Your task to perform on an android device: Search for "usb-c to usb-a" on bestbuy, select the first entry, add it to the cart, then select checkout. Image 0: 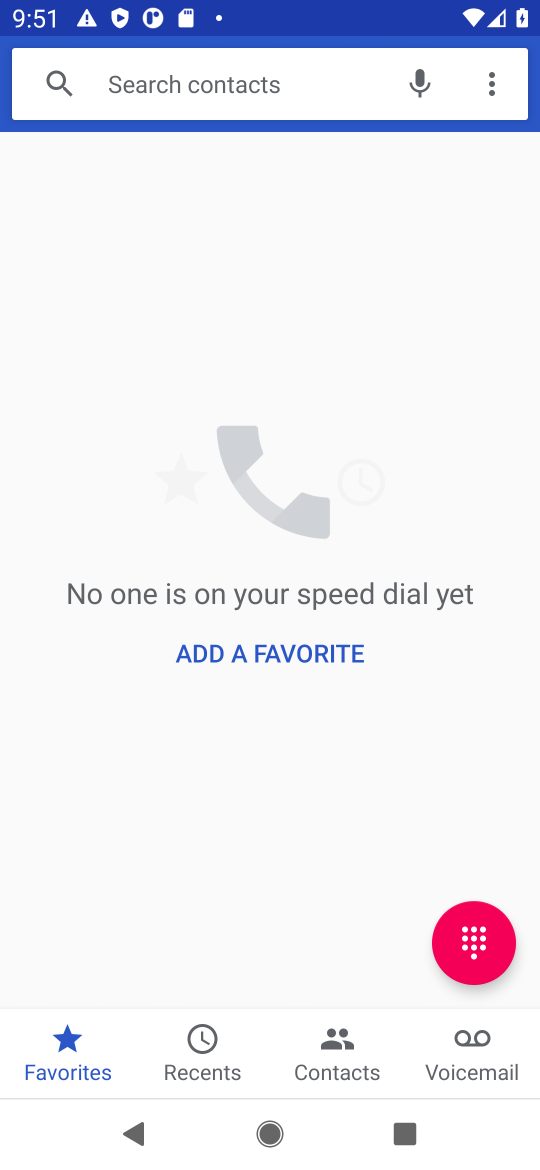
Step 0: press home button
Your task to perform on an android device: Search for "usb-c to usb-a" on bestbuy, select the first entry, add it to the cart, then select checkout. Image 1: 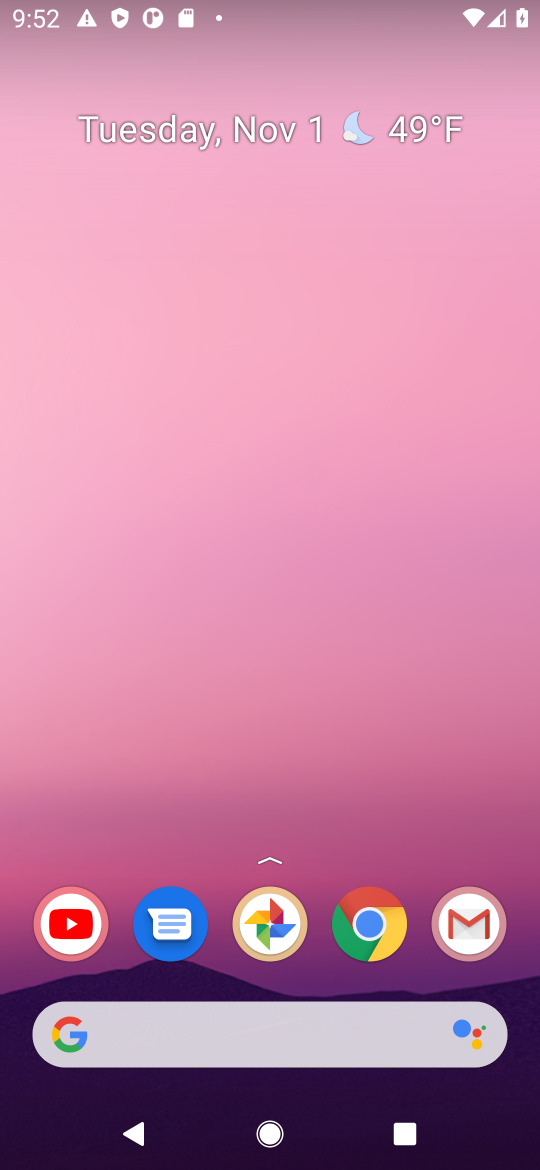
Step 1: click (372, 928)
Your task to perform on an android device: Search for "usb-c to usb-a" on bestbuy, select the first entry, add it to the cart, then select checkout. Image 2: 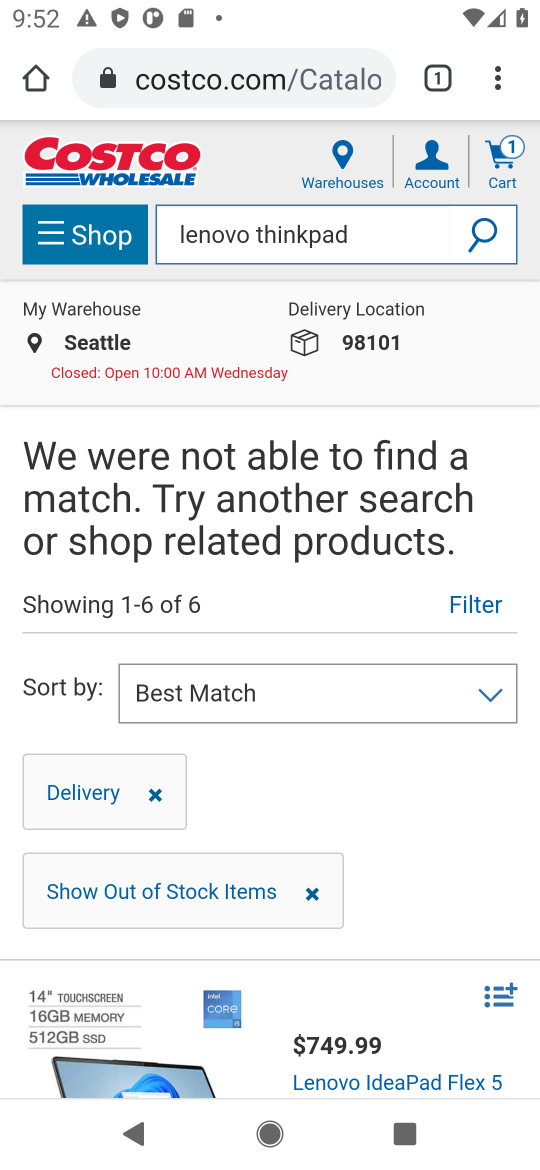
Step 2: click (264, 79)
Your task to perform on an android device: Search for "usb-c to usb-a" on bestbuy, select the first entry, add it to the cart, then select checkout. Image 3: 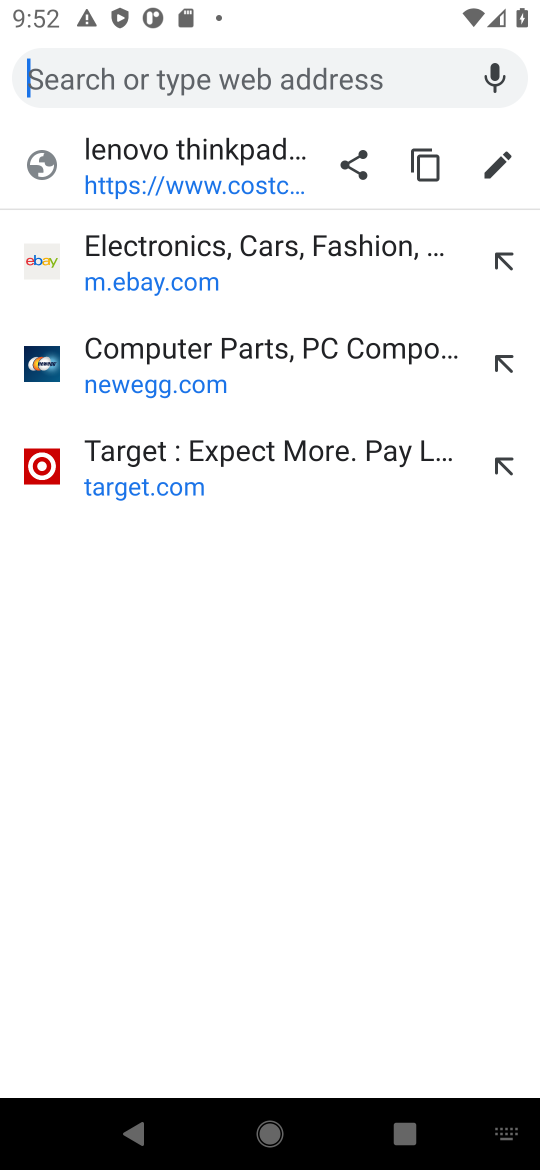
Step 3: type "bestbuy"
Your task to perform on an android device: Search for "usb-c to usb-a" on bestbuy, select the first entry, add it to the cart, then select checkout. Image 4: 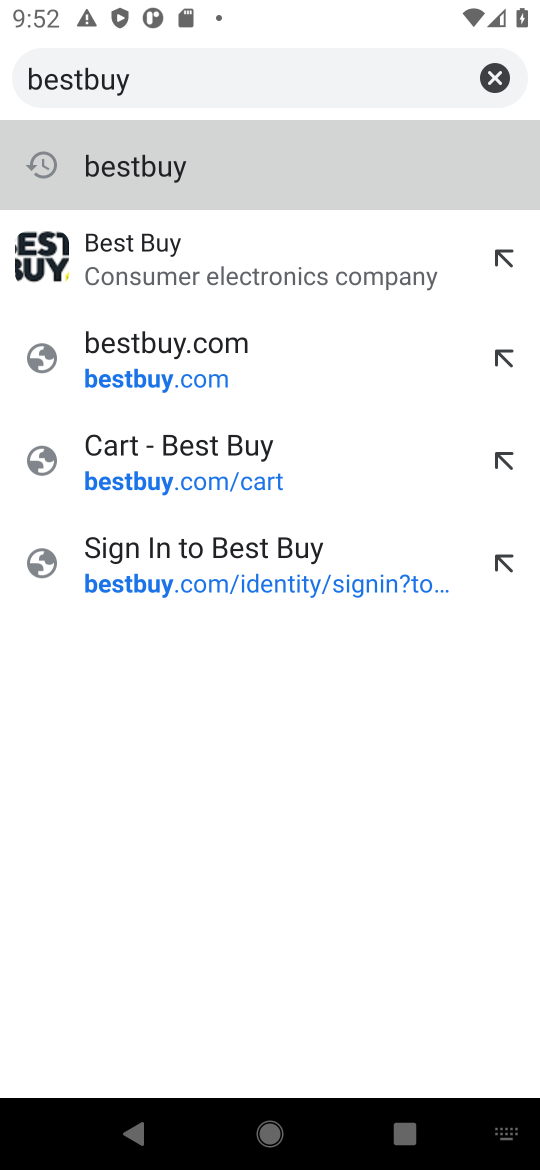
Step 4: click (86, 258)
Your task to perform on an android device: Search for "usb-c to usb-a" on bestbuy, select the first entry, add it to the cart, then select checkout. Image 5: 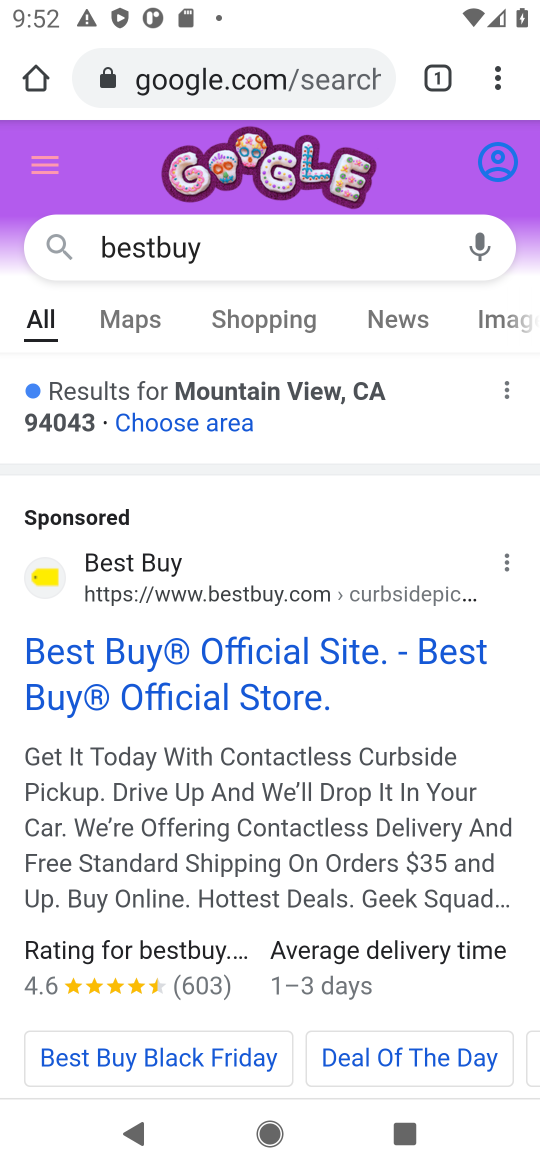
Step 5: click (171, 657)
Your task to perform on an android device: Search for "usb-c to usb-a" on bestbuy, select the first entry, add it to the cart, then select checkout. Image 6: 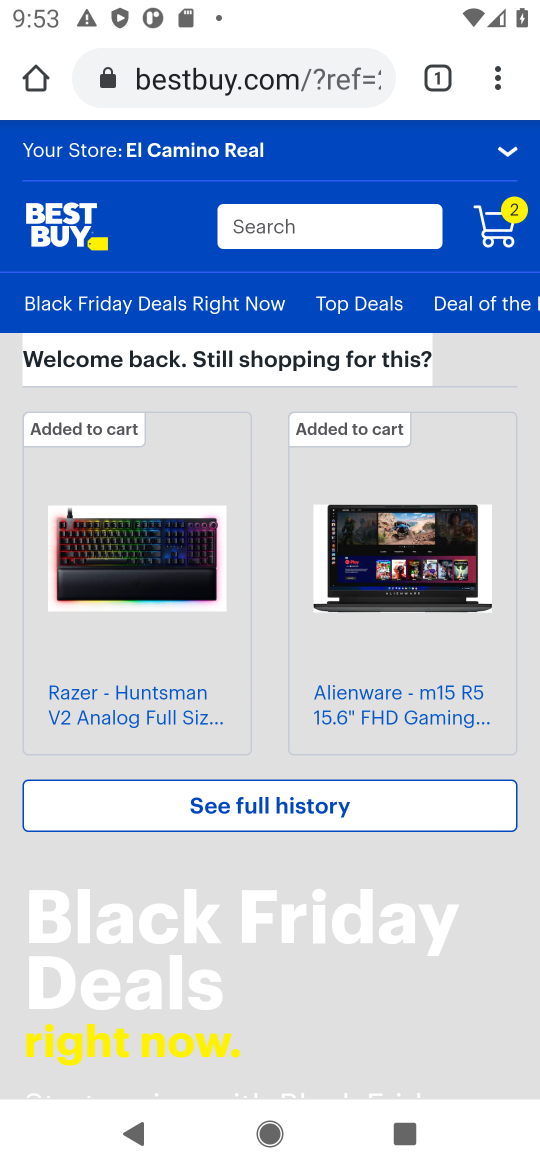
Step 6: click (277, 225)
Your task to perform on an android device: Search for "usb-c to usb-a" on bestbuy, select the first entry, add it to the cart, then select checkout. Image 7: 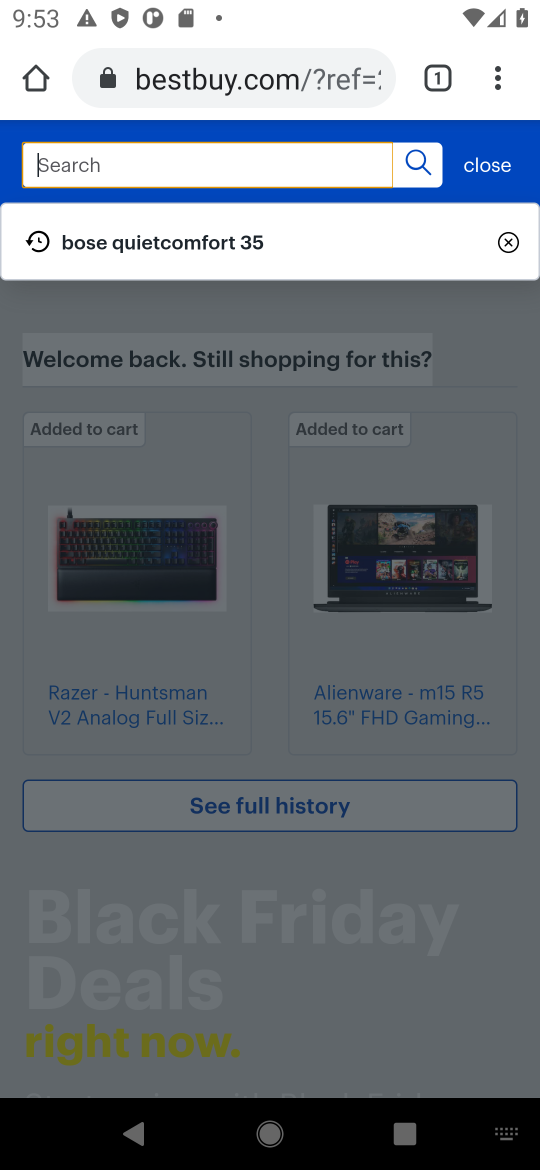
Step 7: type "usb-c to usb-a"
Your task to perform on an android device: Search for "usb-c to usb-a" on bestbuy, select the first entry, add it to the cart, then select checkout. Image 8: 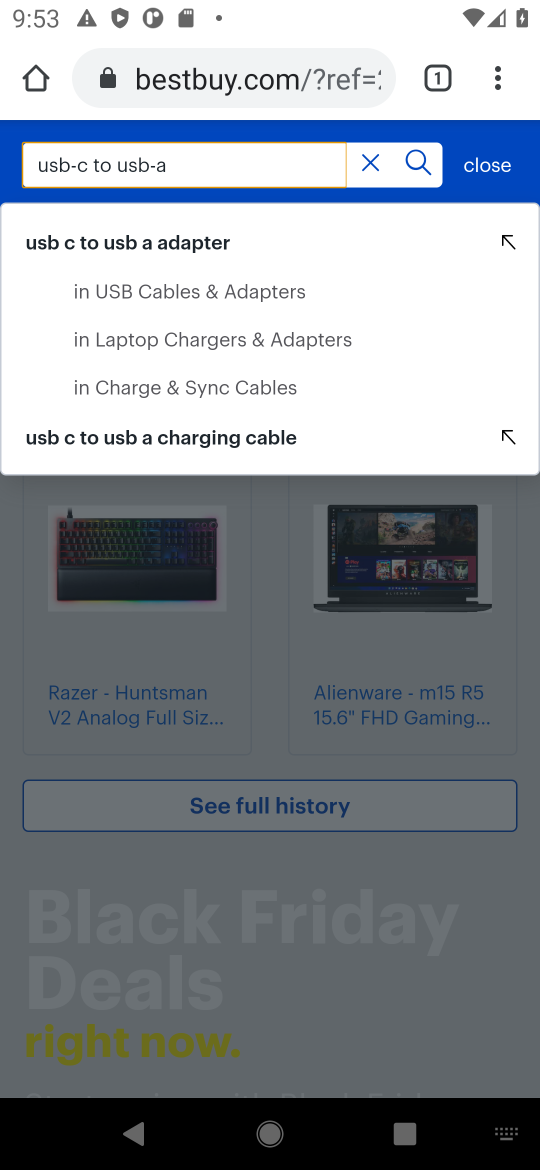
Step 8: click (415, 167)
Your task to perform on an android device: Search for "usb-c to usb-a" on bestbuy, select the first entry, add it to the cart, then select checkout. Image 9: 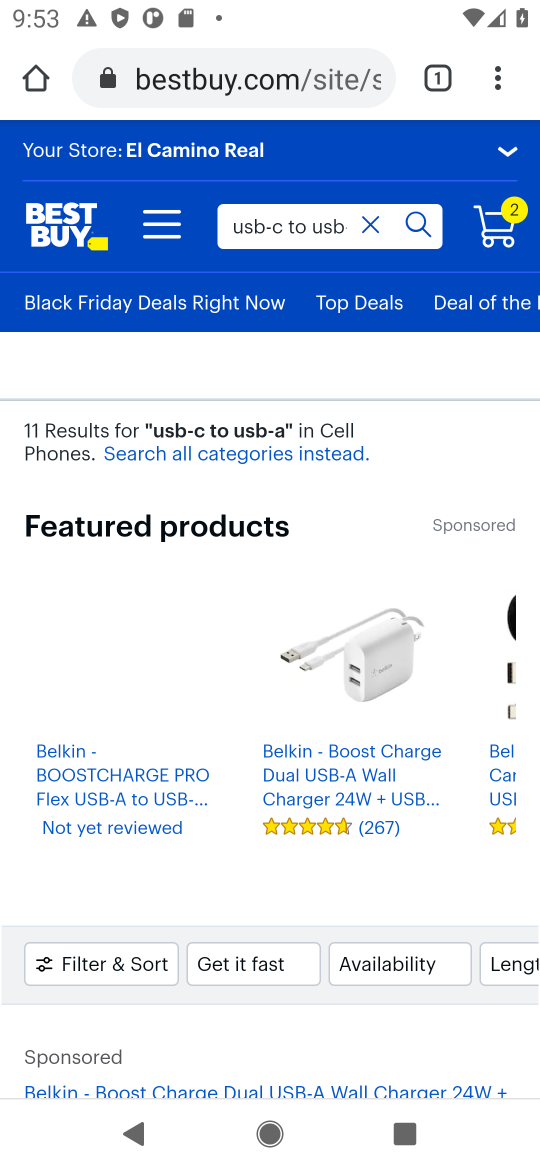
Step 9: drag from (372, 489) to (376, 354)
Your task to perform on an android device: Search for "usb-c to usb-a" on bestbuy, select the first entry, add it to the cart, then select checkout. Image 10: 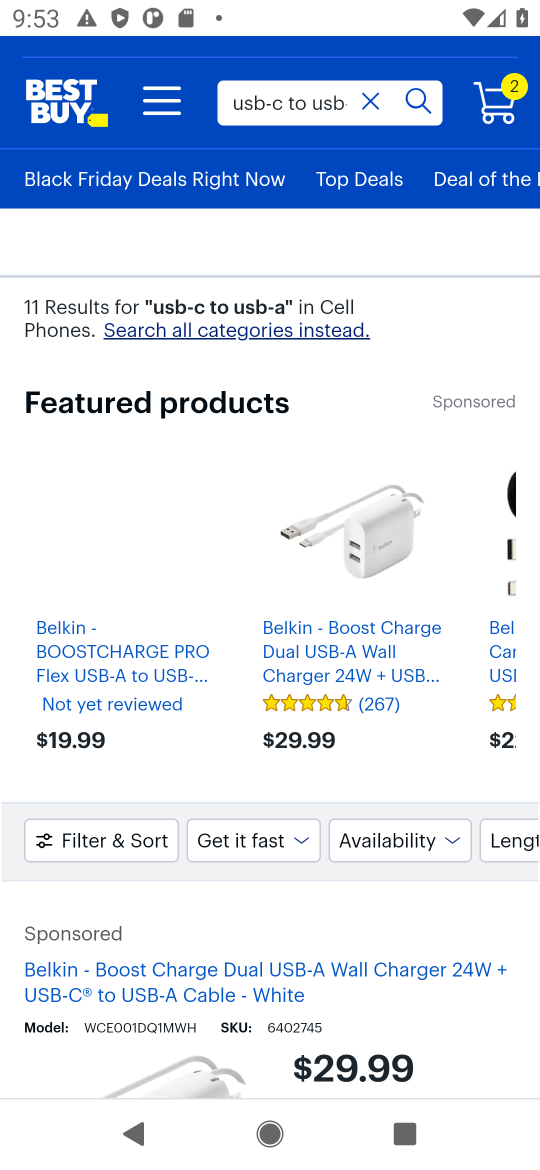
Step 10: drag from (349, 780) to (336, 549)
Your task to perform on an android device: Search for "usb-c to usb-a" on bestbuy, select the first entry, add it to the cart, then select checkout. Image 11: 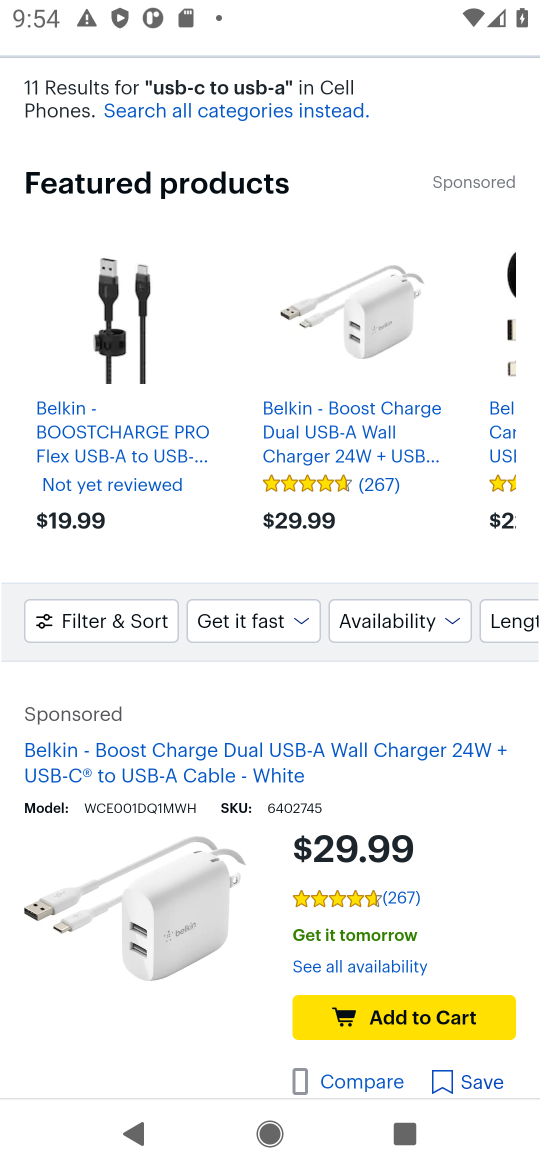
Step 11: click (207, 765)
Your task to perform on an android device: Search for "usb-c to usb-a" on bestbuy, select the first entry, add it to the cart, then select checkout. Image 12: 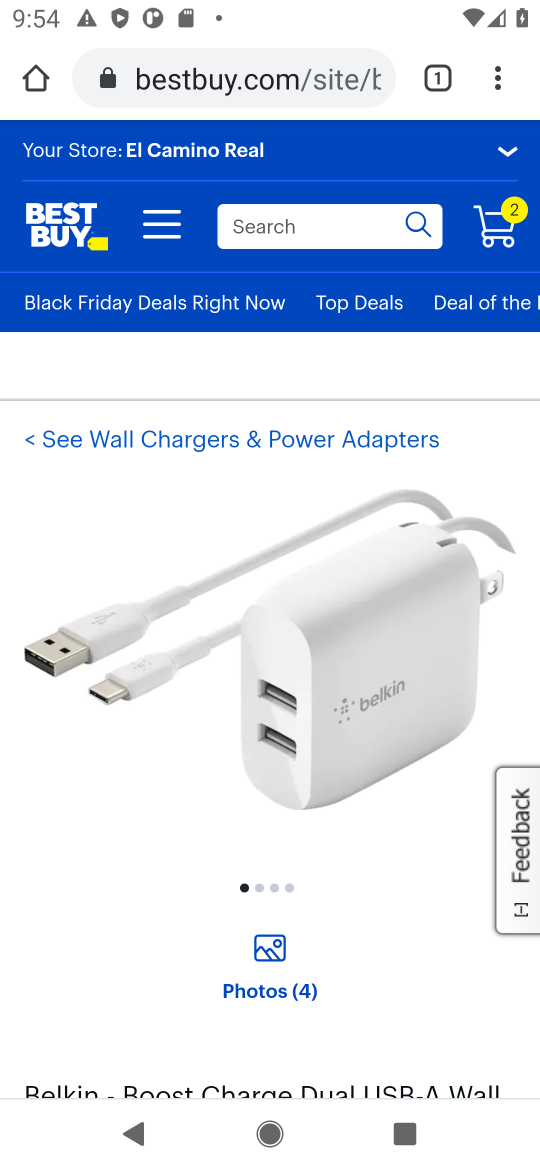
Step 12: drag from (411, 1035) to (340, 533)
Your task to perform on an android device: Search for "usb-c to usb-a" on bestbuy, select the first entry, add it to the cart, then select checkout. Image 13: 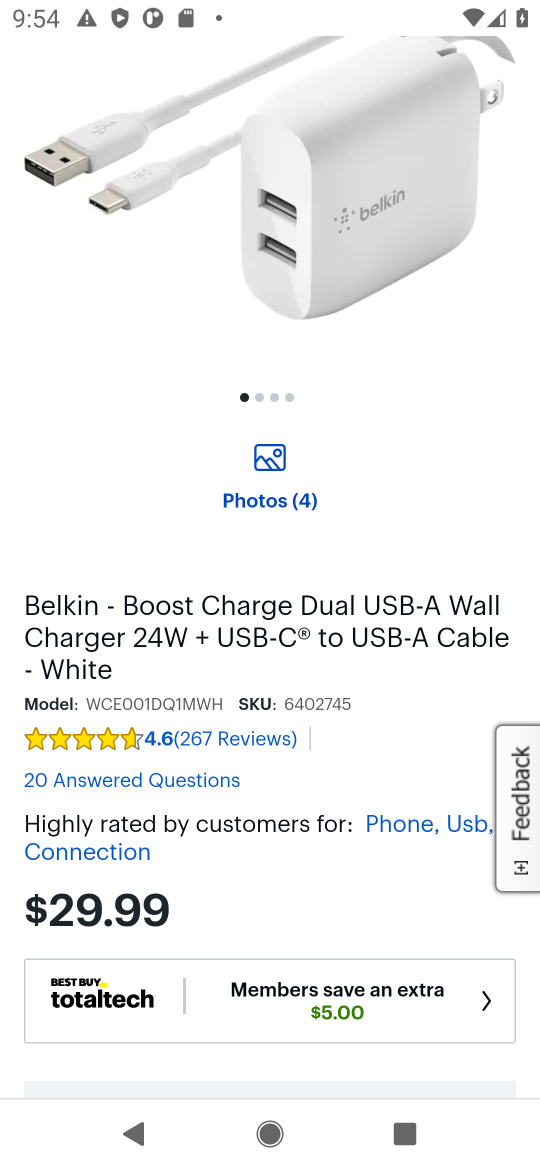
Step 13: drag from (322, 910) to (323, 524)
Your task to perform on an android device: Search for "usb-c to usb-a" on bestbuy, select the first entry, add it to the cart, then select checkout. Image 14: 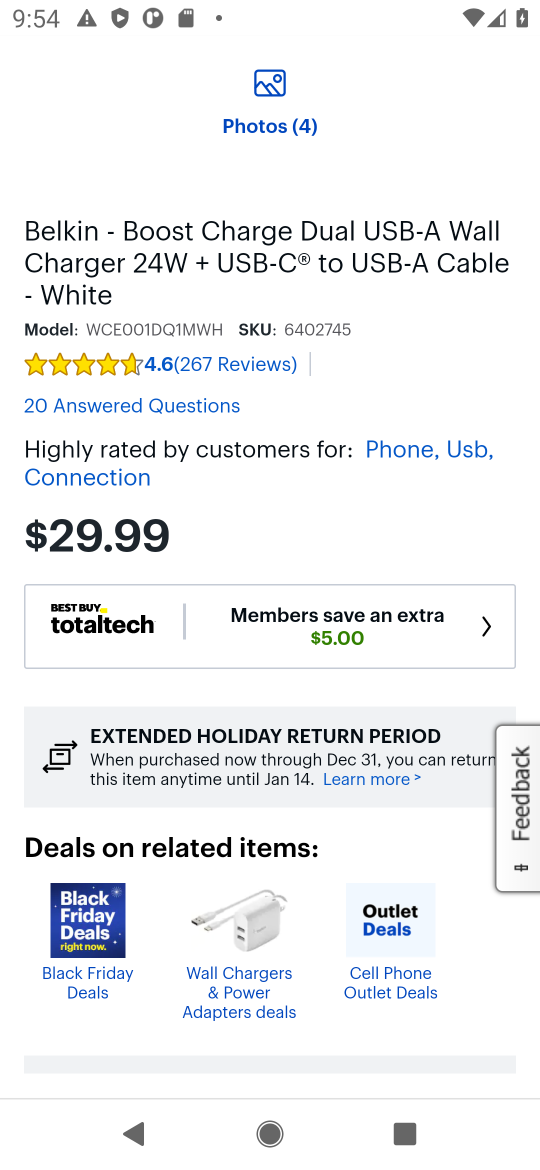
Step 14: drag from (221, 689) to (193, 263)
Your task to perform on an android device: Search for "usb-c to usb-a" on bestbuy, select the first entry, add it to the cart, then select checkout. Image 15: 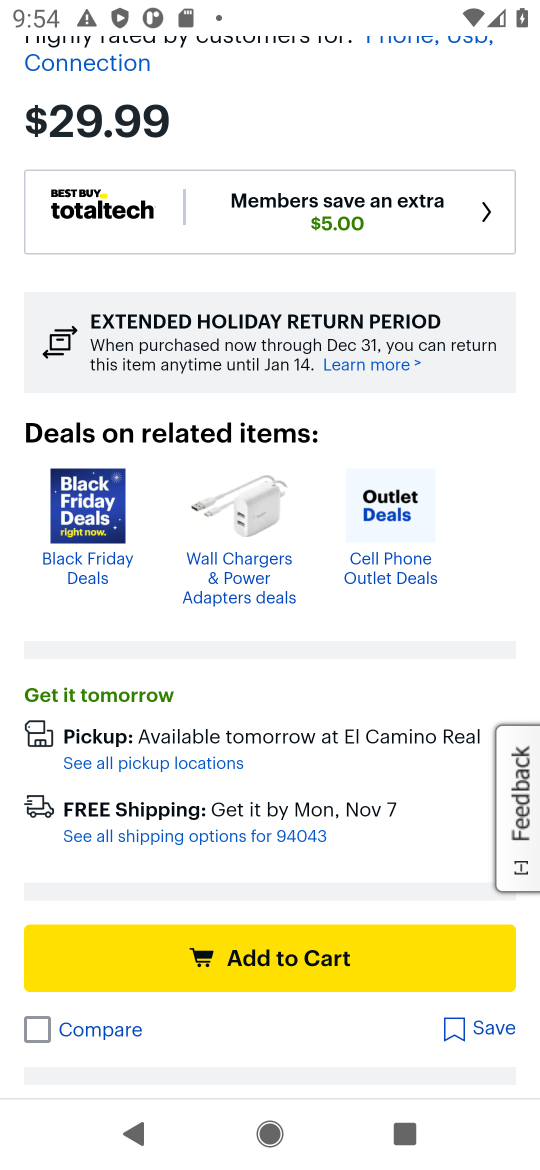
Step 15: click (269, 953)
Your task to perform on an android device: Search for "usb-c to usb-a" on bestbuy, select the first entry, add it to the cart, then select checkout. Image 16: 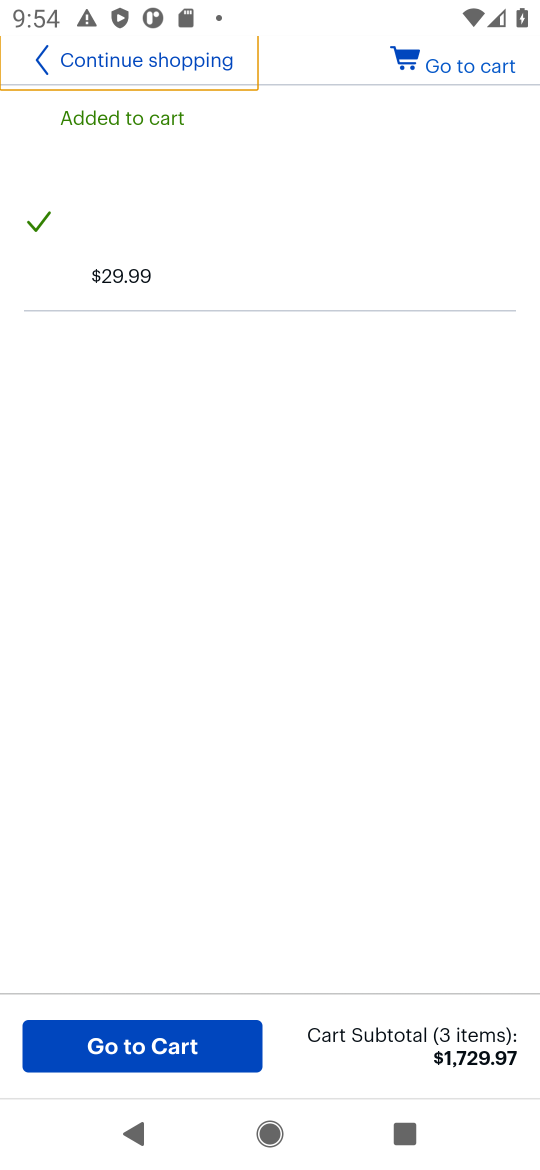
Step 16: click (134, 1051)
Your task to perform on an android device: Search for "usb-c to usb-a" on bestbuy, select the first entry, add it to the cart, then select checkout. Image 17: 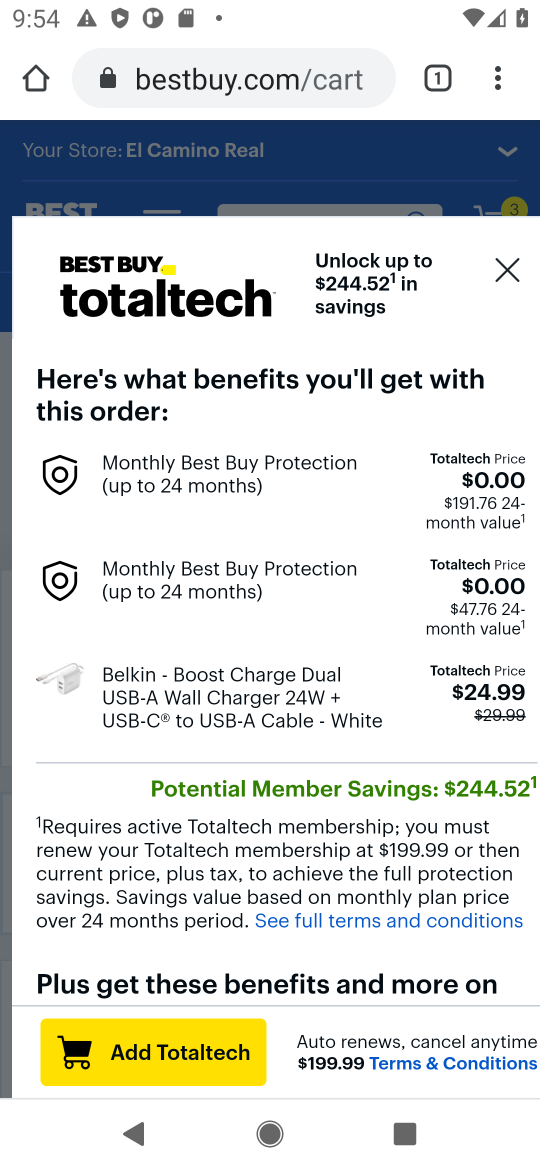
Step 17: click (501, 275)
Your task to perform on an android device: Search for "usb-c to usb-a" on bestbuy, select the first entry, add it to the cart, then select checkout. Image 18: 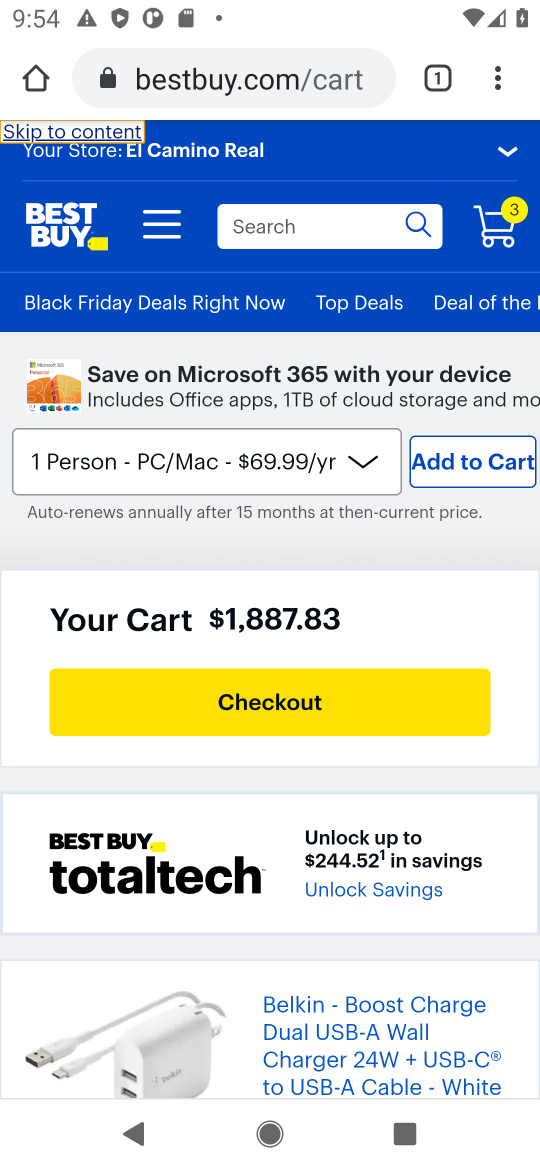
Step 18: click (310, 706)
Your task to perform on an android device: Search for "usb-c to usb-a" on bestbuy, select the first entry, add it to the cart, then select checkout. Image 19: 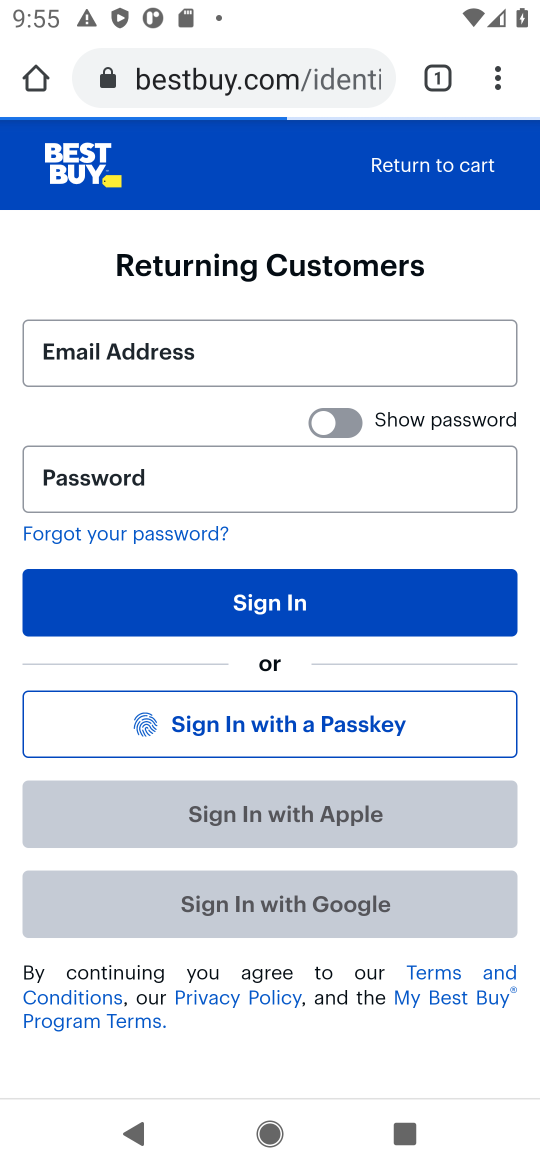
Step 19: task complete